Your task to perform on an android device: Open Google Chrome and open the bookmarks view Image 0: 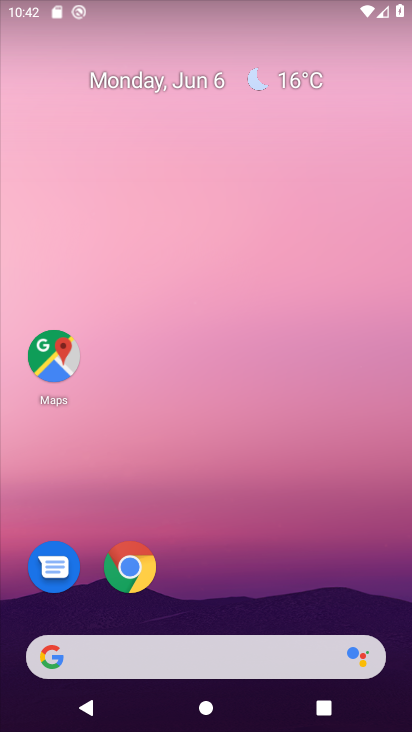
Step 0: click (132, 567)
Your task to perform on an android device: Open Google Chrome and open the bookmarks view Image 1: 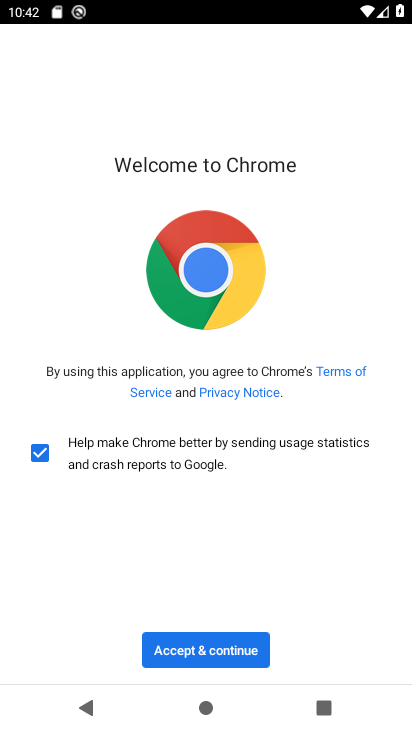
Step 1: click (223, 651)
Your task to perform on an android device: Open Google Chrome and open the bookmarks view Image 2: 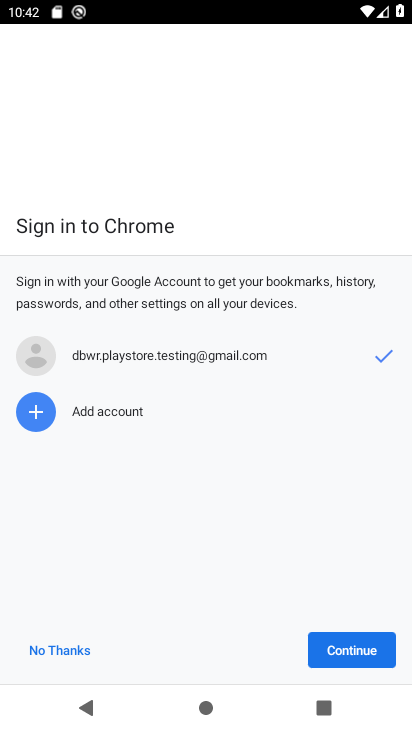
Step 2: click (337, 647)
Your task to perform on an android device: Open Google Chrome and open the bookmarks view Image 3: 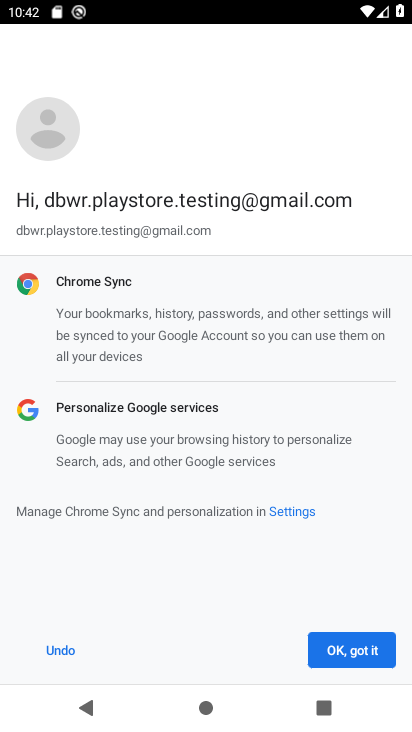
Step 3: click (337, 647)
Your task to perform on an android device: Open Google Chrome and open the bookmarks view Image 4: 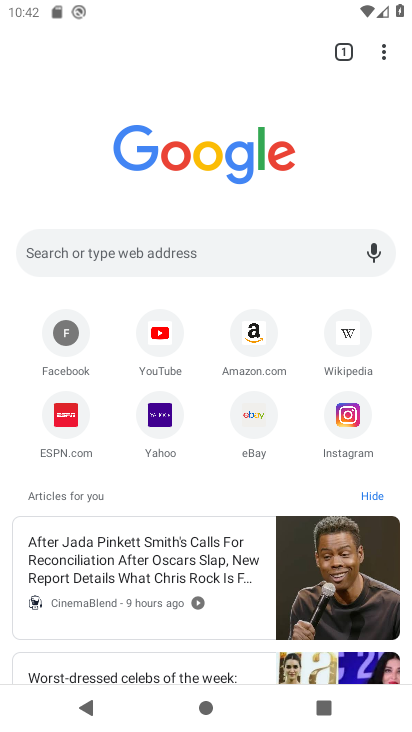
Step 4: click (382, 55)
Your task to perform on an android device: Open Google Chrome and open the bookmarks view Image 5: 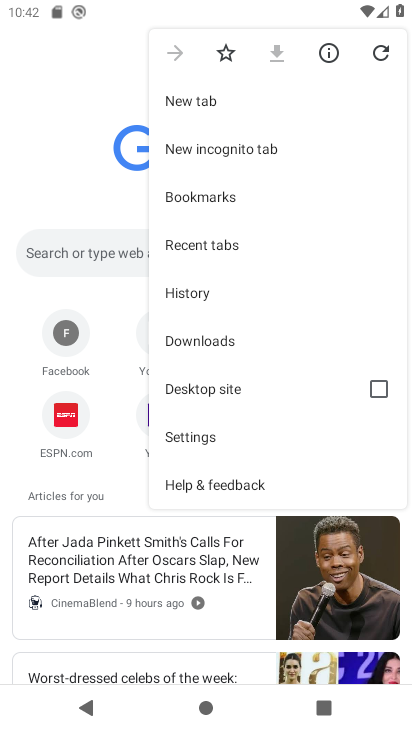
Step 5: click (205, 194)
Your task to perform on an android device: Open Google Chrome and open the bookmarks view Image 6: 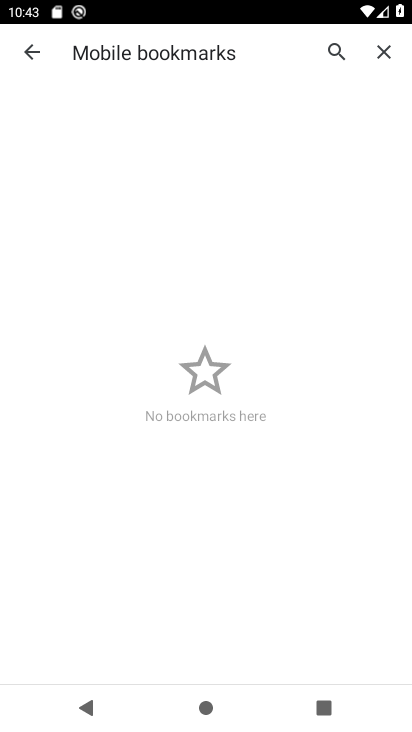
Step 6: task complete